Your task to perform on an android device: Add "jbl charge 4" to the cart on target.com, then select checkout. Image 0: 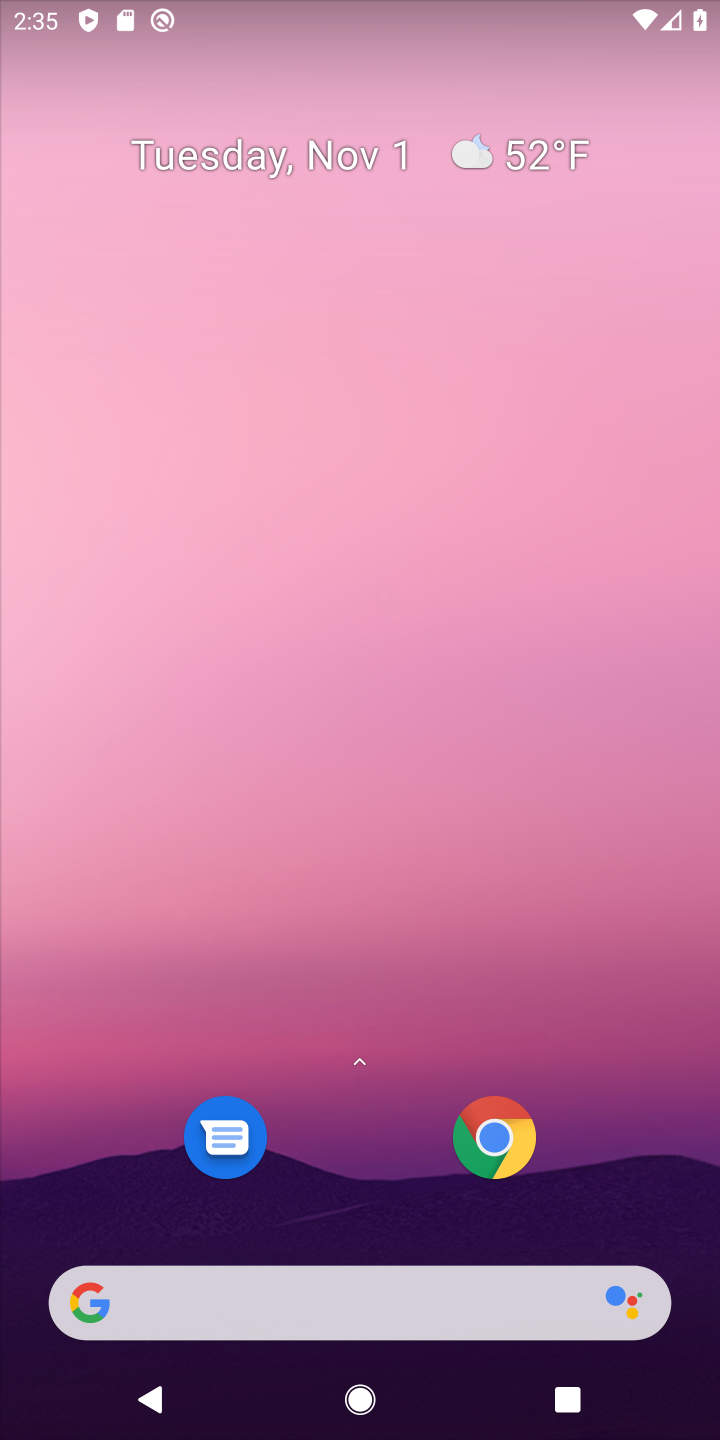
Step 0: click (401, 1263)
Your task to perform on an android device: Add "jbl charge 4" to the cart on target.com, then select checkout. Image 1: 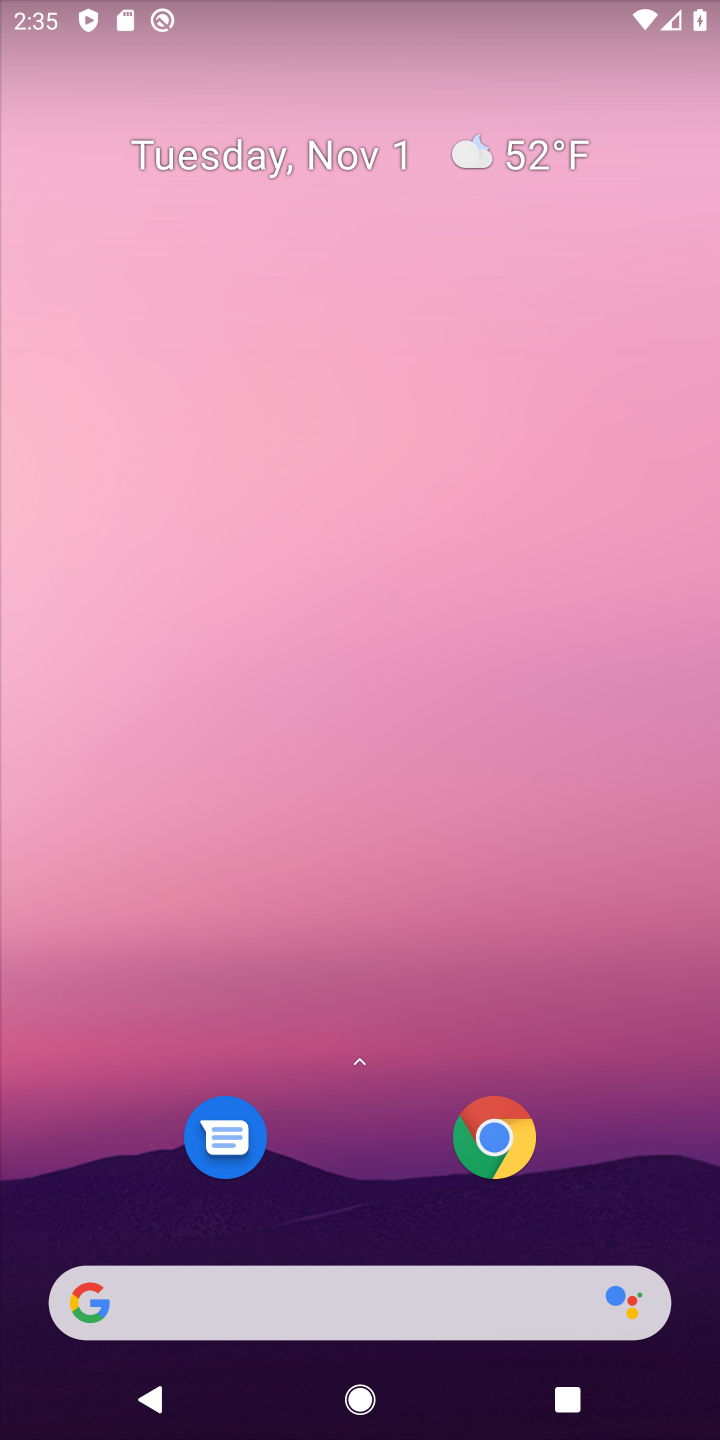
Step 1: click (388, 1283)
Your task to perform on an android device: Add "jbl charge 4" to the cart on target.com, then select checkout. Image 2: 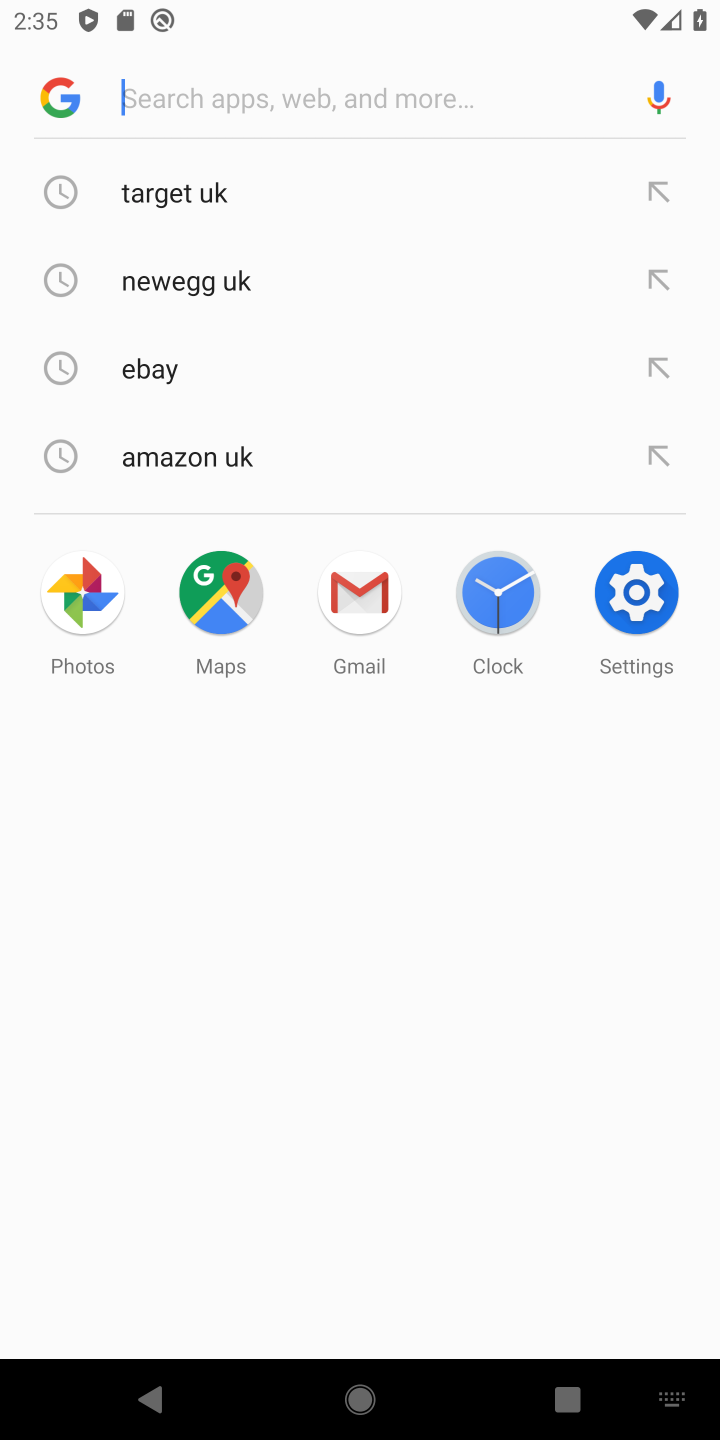
Step 2: type "target"
Your task to perform on an android device: Add "jbl charge 4" to the cart on target.com, then select checkout. Image 3: 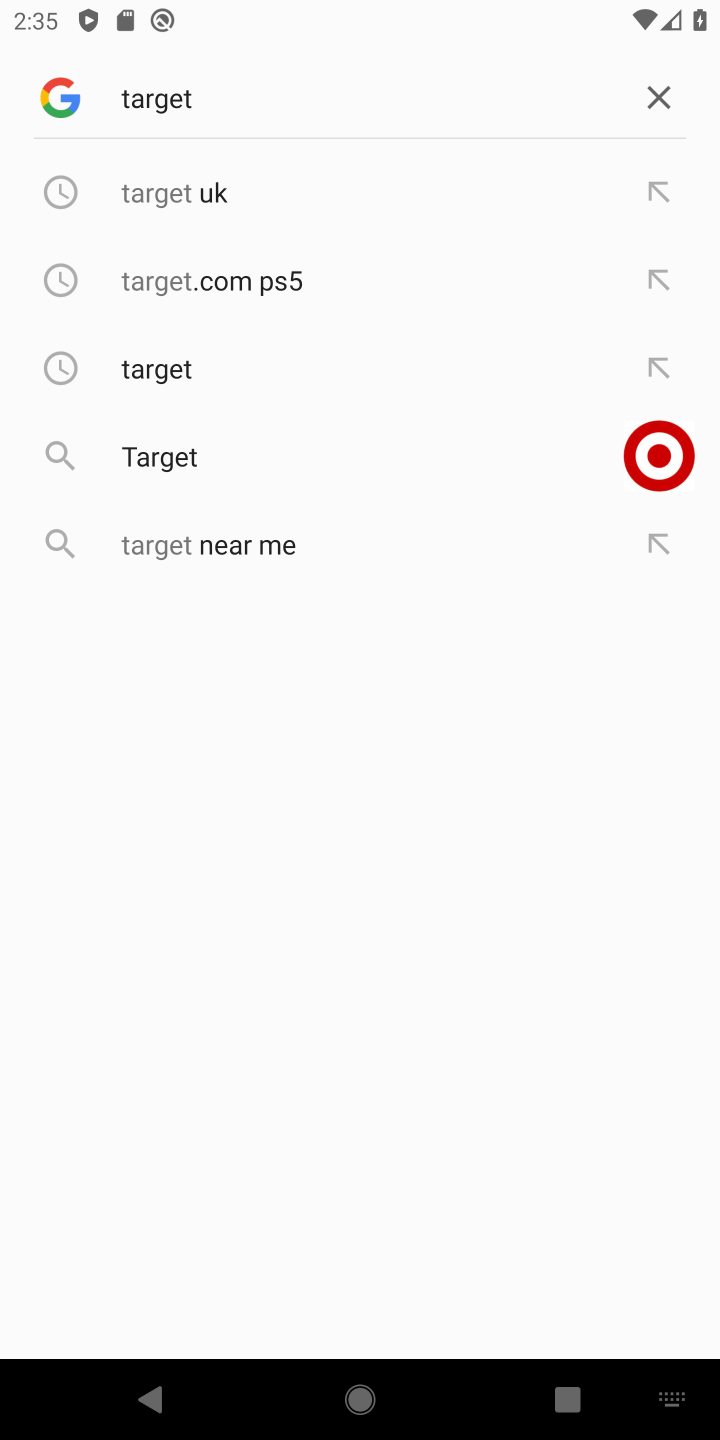
Step 3: click (300, 206)
Your task to perform on an android device: Add "jbl charge 4" to the cart on target.com, then select checkout. Image 4: 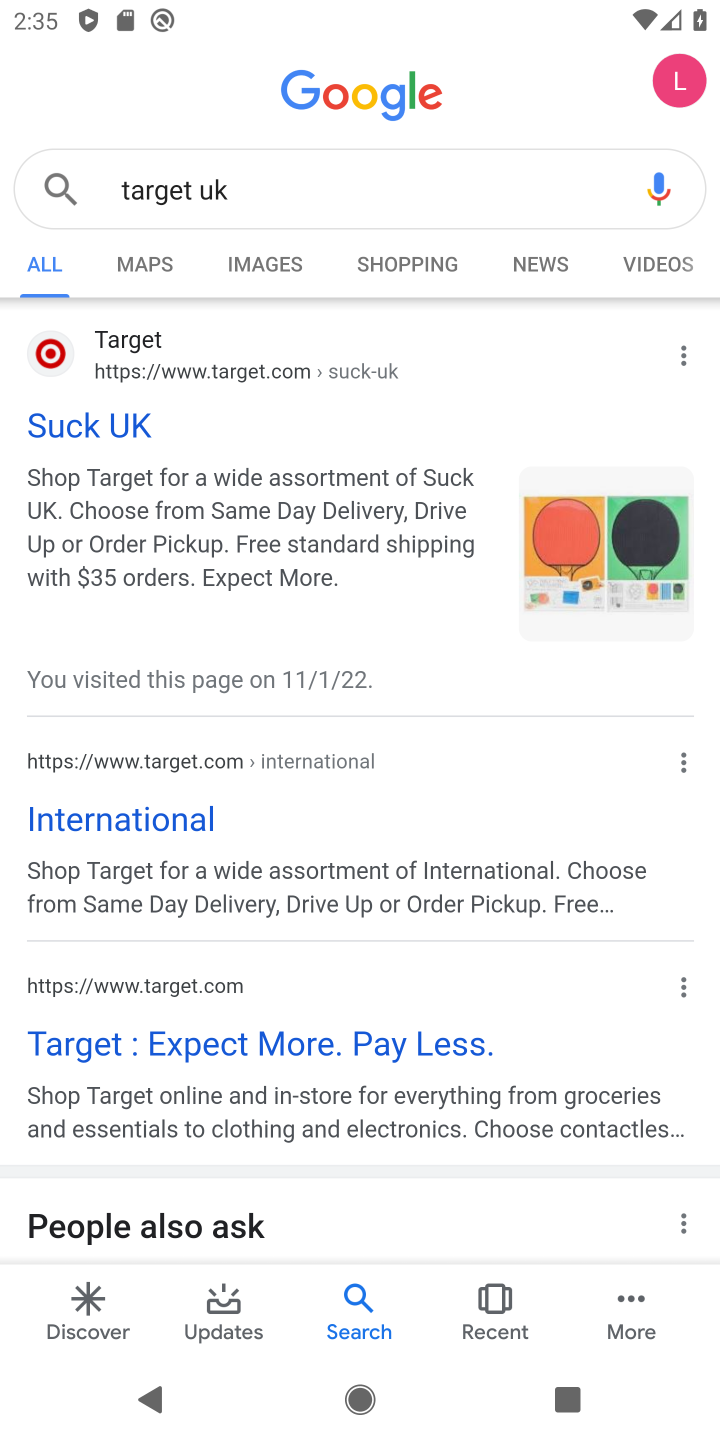
Step 4: click (29, 431)
Your task to perform on an android device: Add "jbl charge 4" to the cart on target.com, then select checkout. Image 5: 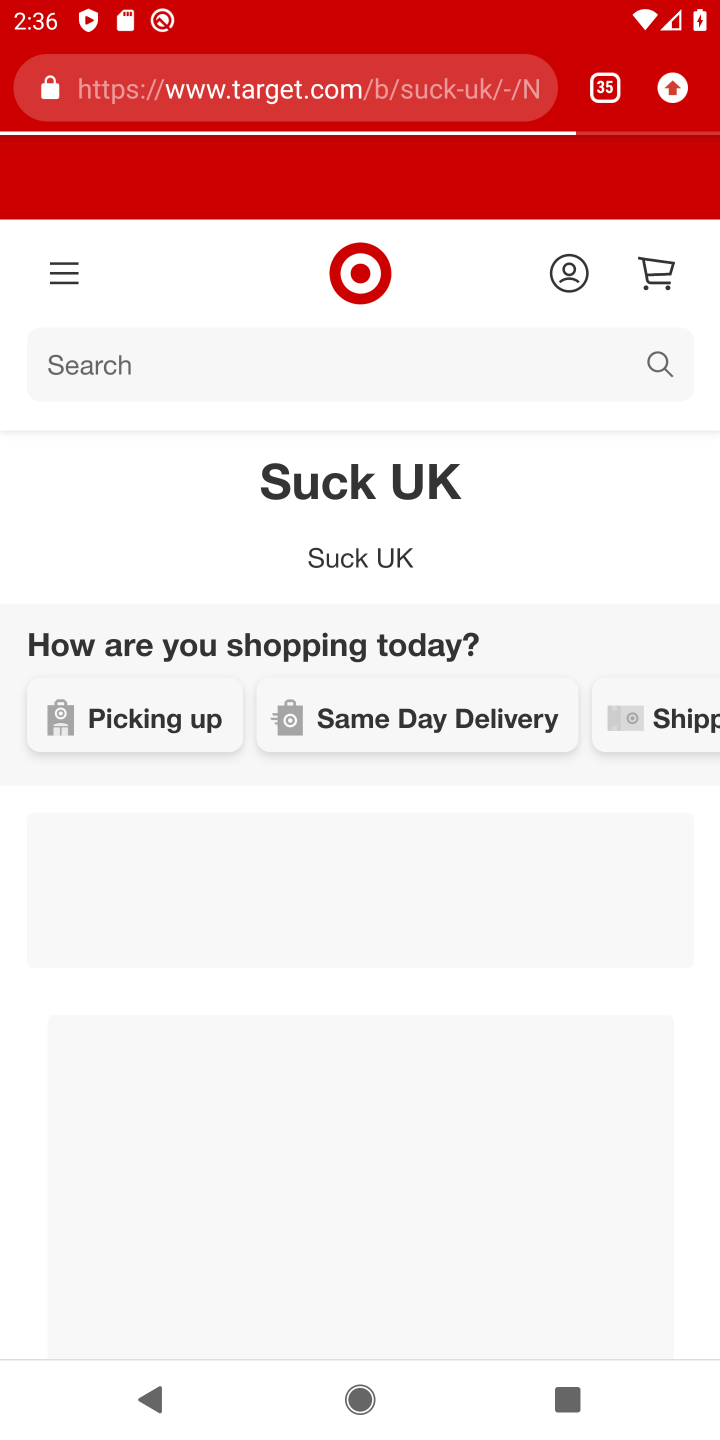
Step 5: click (342, 374)
Your task to perform on an android device: Add "jbl charge 4" to the cart on target.com, then select checkout. Image 6: 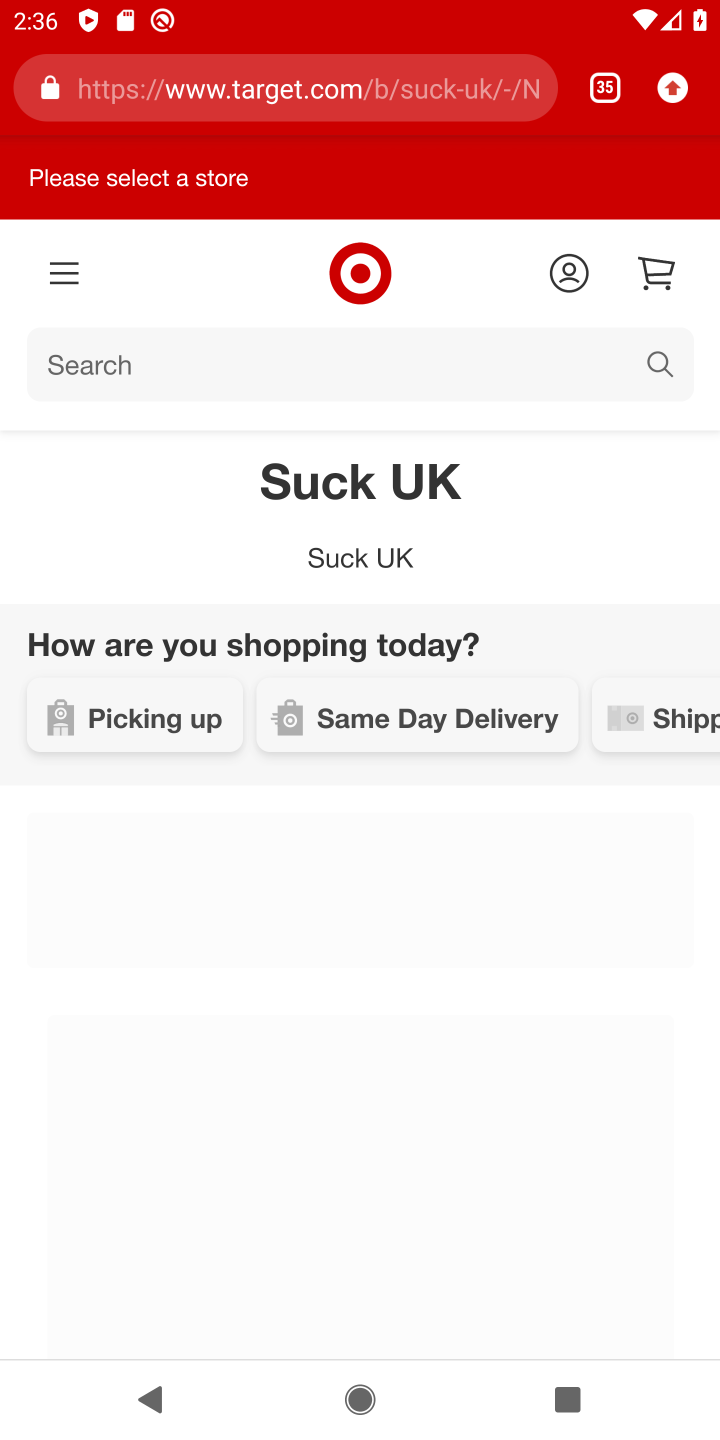
Step 6: type "jbl charge4"
Your task to perform on an android device: Add "jbl charge 4" to the cart on target.com, then select checkout. Image 7: 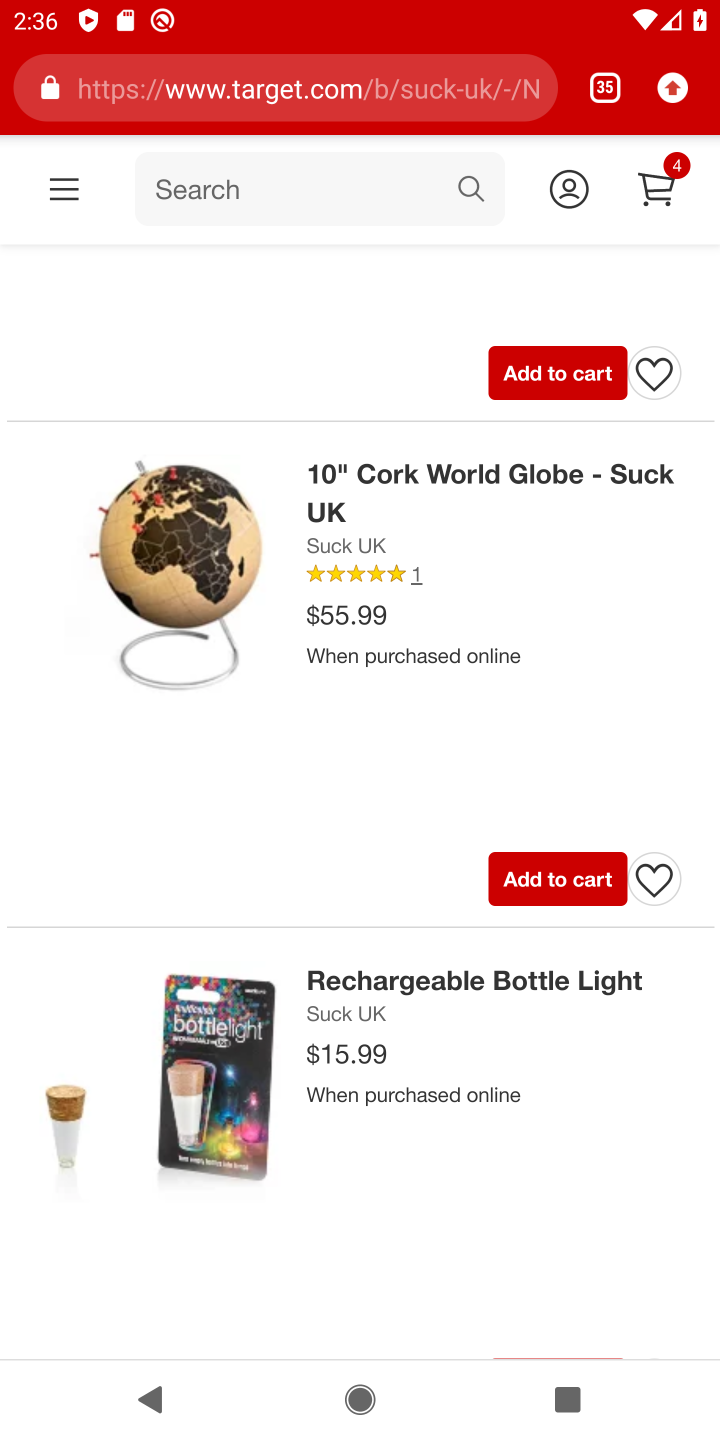
Step 7: click (594, 896)
Your task to perform on an android device: Add "jbl charge 4" to the cart on target.com, then select checkout. Image 8: 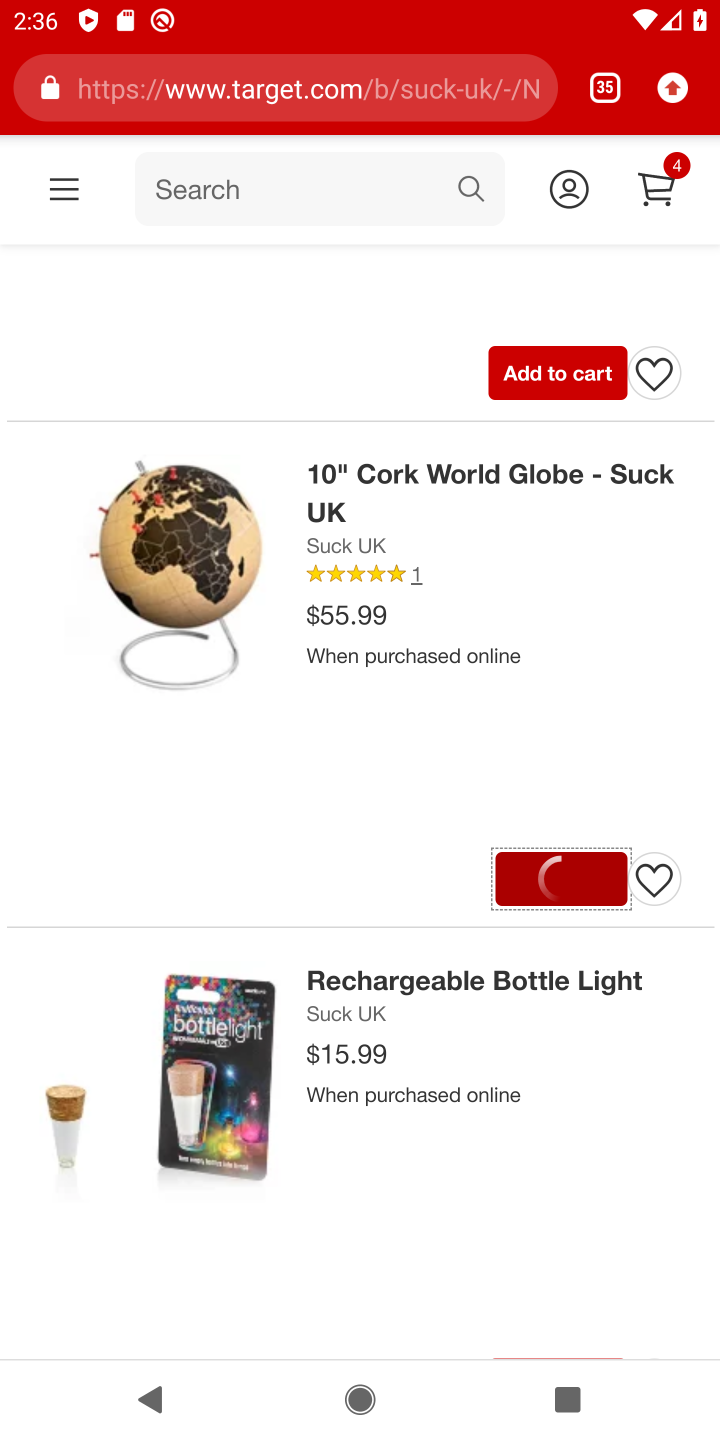
Step 8: task complete